Your task to perform on an android device: Open ESPN.com Image 0: 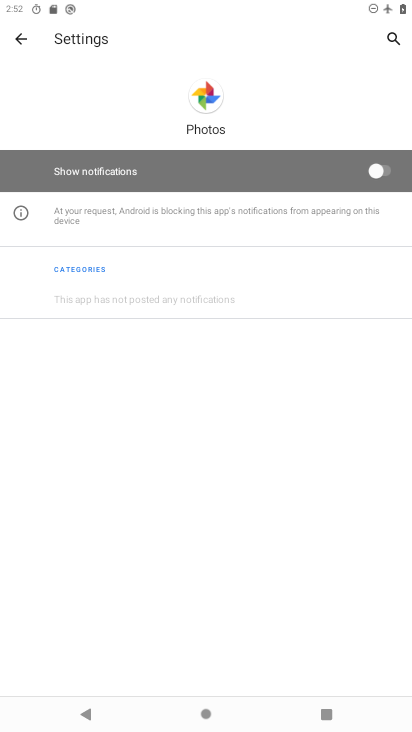
Step 0: press home button
Your task to perform on an android device: Open ESPN.com Image 1: 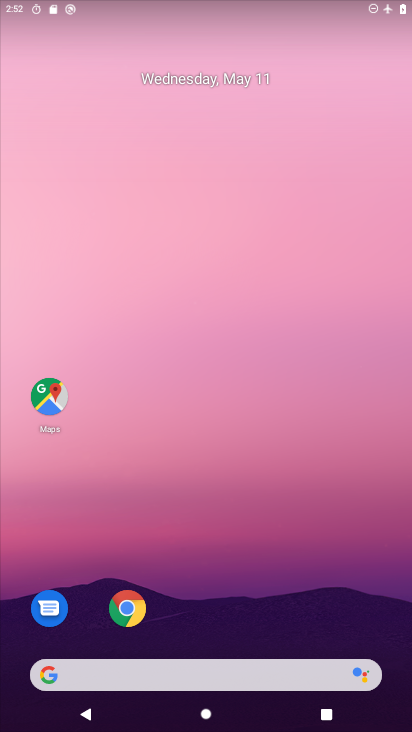
Step 1: click (124, 666)
Your task to perform on an android device: Open ESPN.com Image 2: 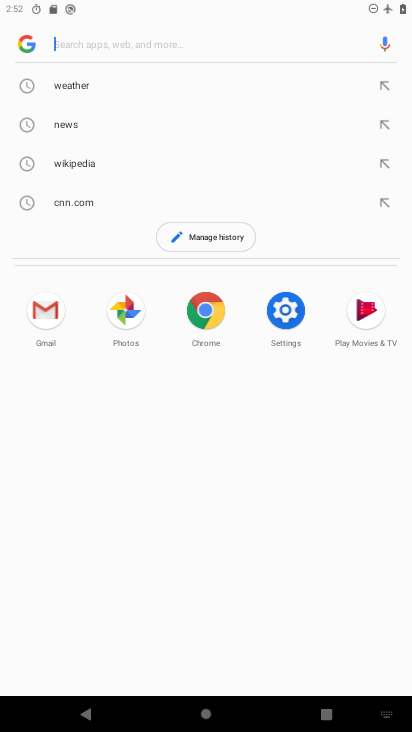
Step 2: type "ESPN.com"
Your task to perform on an android device: Open ESPN.com Image 3: 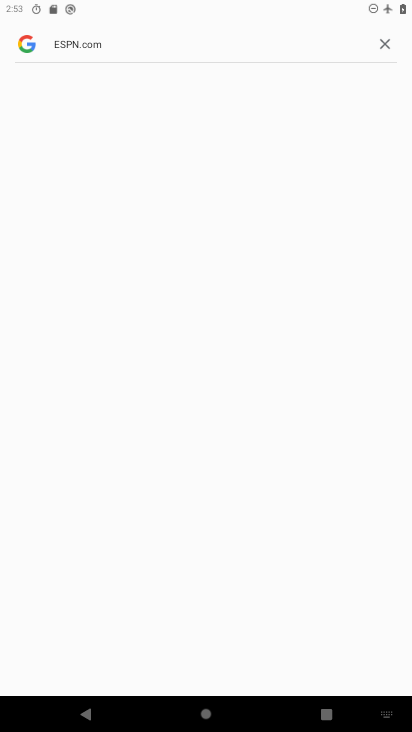
Step 3: click (112, 39)
Your task to perform on an android device: Open ESPN.com Image 4: 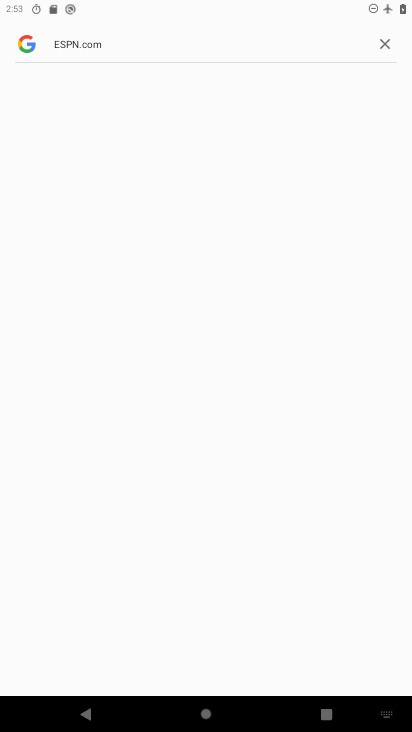
Step 4: click (97, 33)
Your task to perform on an android device: Open ESPN.com Image 5: 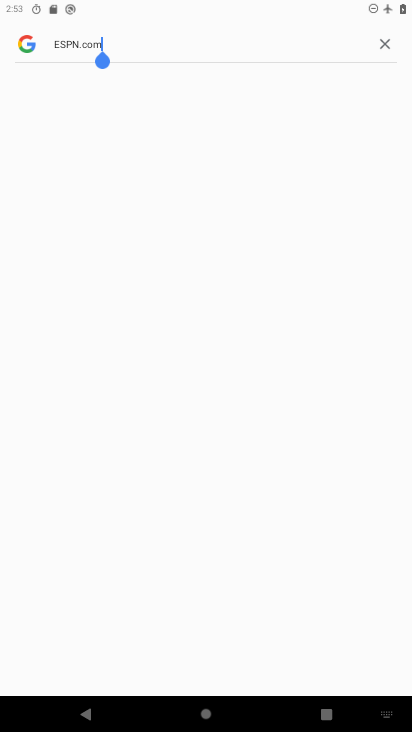
Step 5: click (100, 43)
Your task to perform on an android device: Open ESPN.com Image 6: 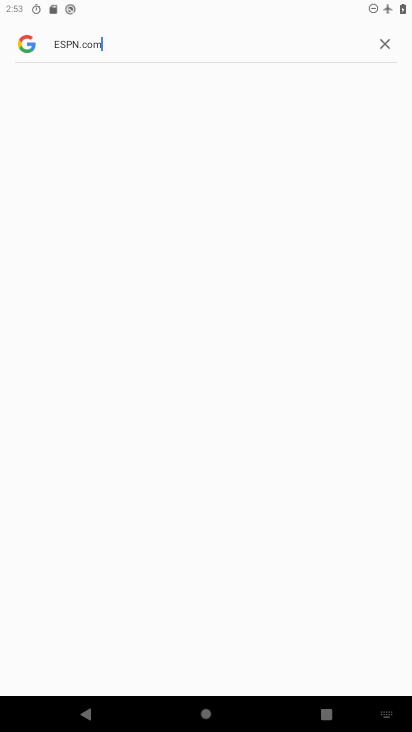
Step 6: drag from (100, 43) to (17, 33)
Your task to perform on an android device: Open ESPN.com Image 7: 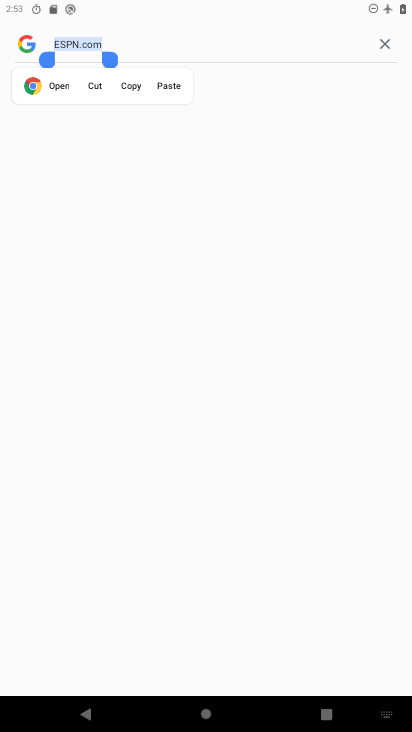
Step 7: click (216, 37)
Your task to perform on an android device: Open ESPN.com Image 8: 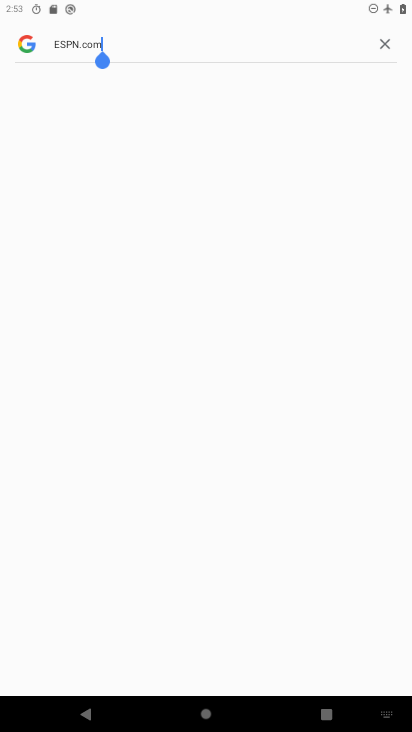
Step 8: drag from (109, 49) to (51, 34)
Your task to perform on an android device: Open ESPN.com Image 9: 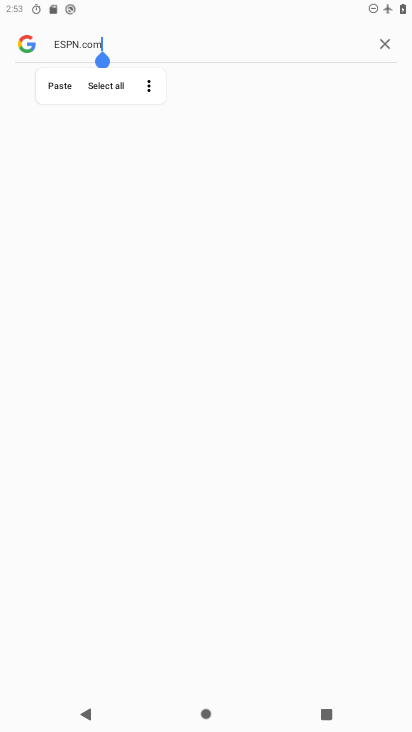
Step 9: drag from (81, 40) to (36, 27)
Your task to perform on an android device: Open ESPN.com Image 10: 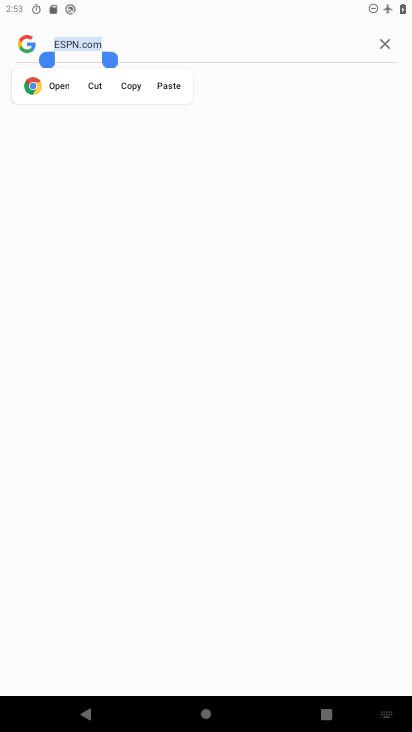
Step 10: click (59, 85)
Your task to perform on an android device: Open ESPN.com Image 11: 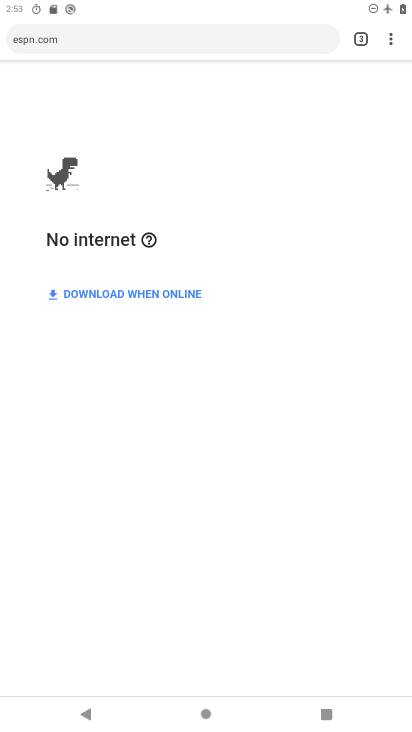
Step 11: task complete